Your task to perform on an android device: move an email to a new category in the gmail app Image 0: 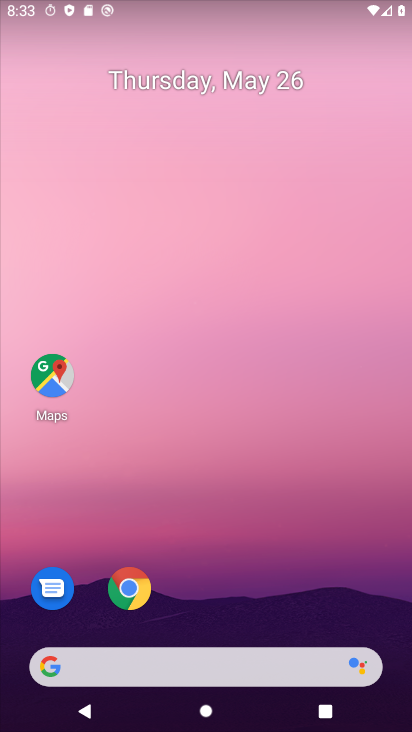
Step 0: drag from (219, 603) to (213, 0)
Your task to perform on an android device: move an email to a new category in the gmail app Image 1: 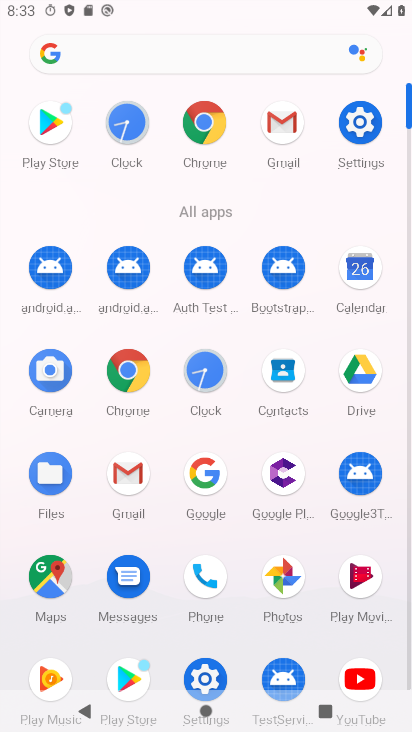
Step 1: click (125, 474)
Your task to perform on an android device: move an email to a new category in the gmail app Image 2: 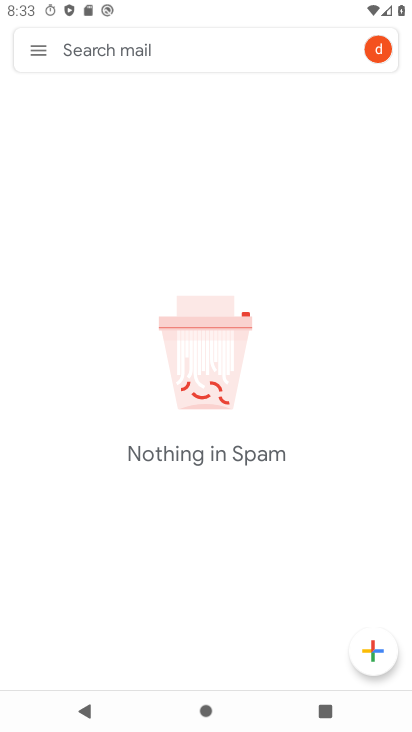
Step 2: click (44, 49)
Your task to perform on an android device: move an email to a new category in the gmail app Image 3: 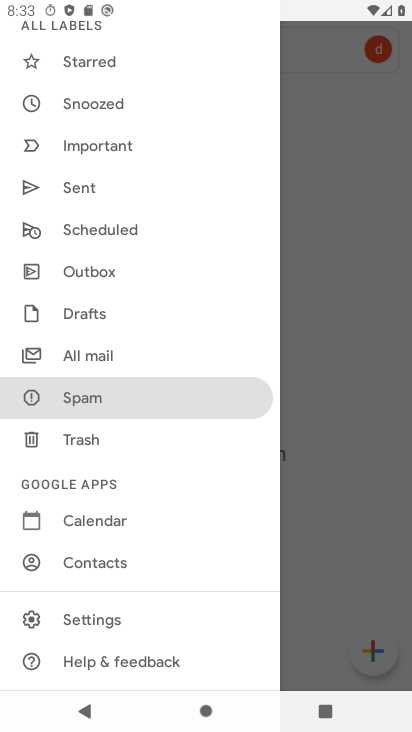
Step 3: click (96, 351)
Your task to perform on an android device: move an email to a new category in the gmail app Image 4: 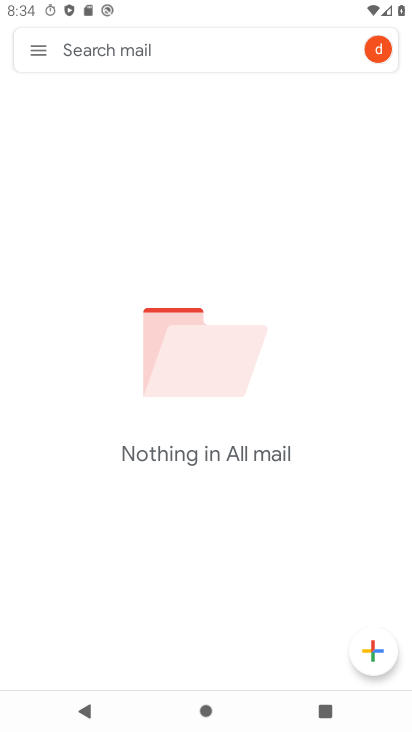
Step 4: task complete